Your task to perform on an android device: check google app version Image 0: 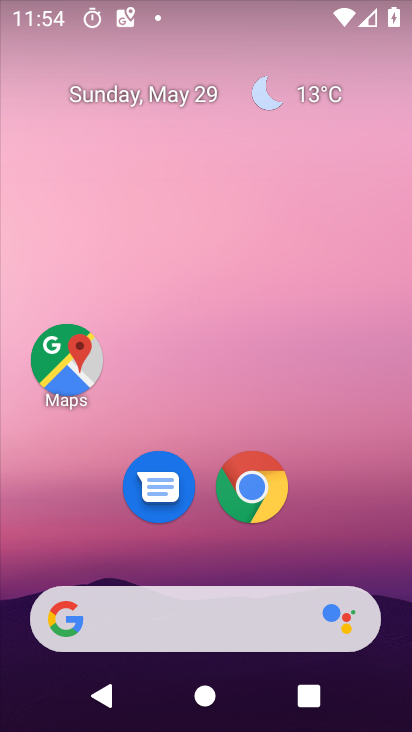
Step 0: drag from (398, 671) to (328, 219)
Your task to perform on an android device: check google app version Image 1: 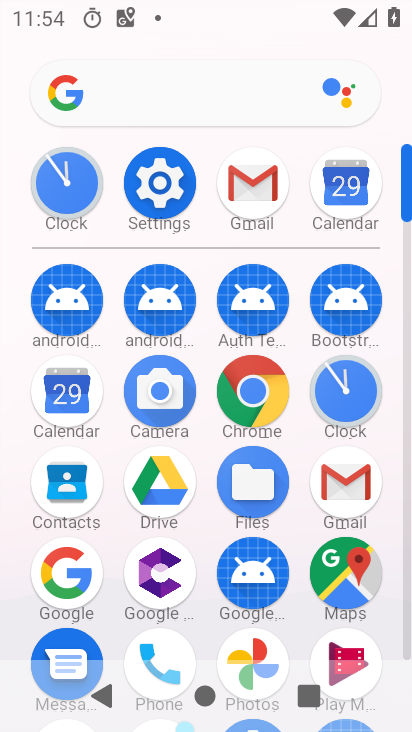
Step 1: click (74, 560)
Your task to perform on an android device: check google app version Image 2: 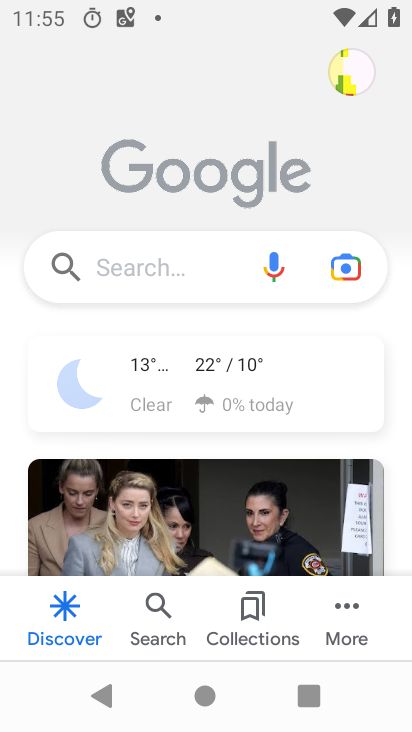
Step 2: drag from (282, 455) to (272, 248)
Your task to perform on an android device: check google app version Image 3: 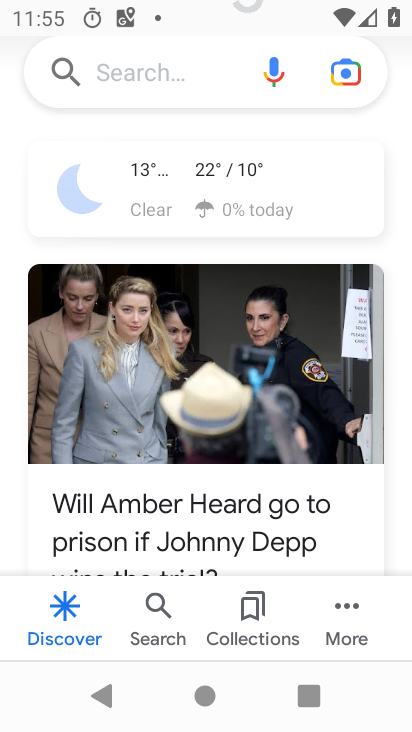
Step 3: click (339, 606)
Your task to perform on an android device: check google app version Image 4: 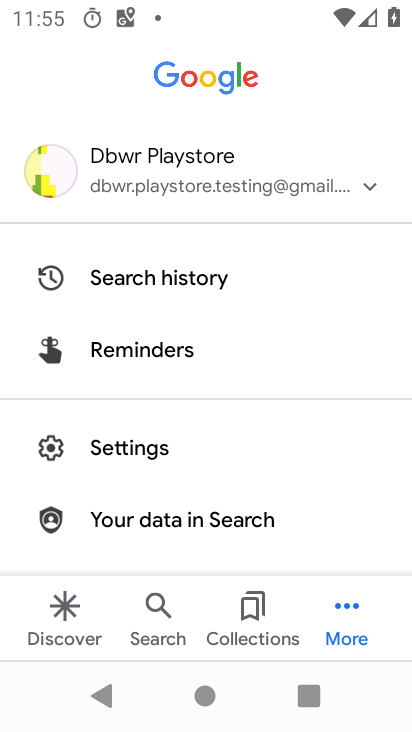
Step 4: click (121, 442)
Your task to perform on an android device: check google app version Image 5: 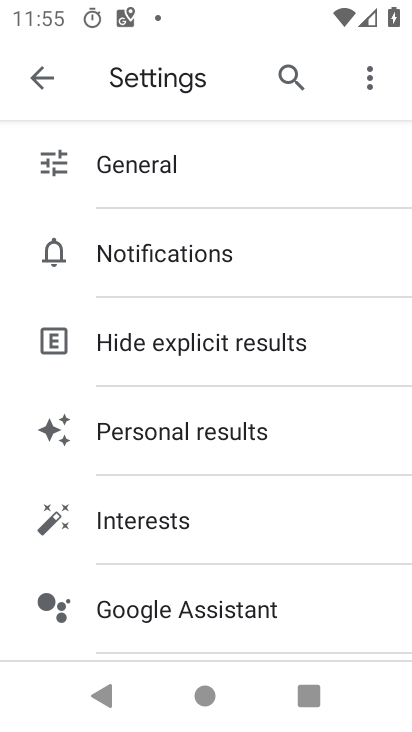
Step 5: click (290, 344)
Your task to perform on an android device: check google app version Image 6: 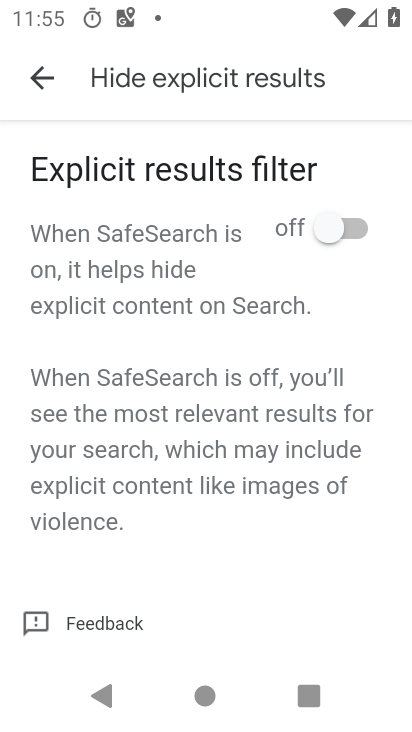
Step 6: click (36, 75)
Your task to perform on an android device: check google app version Image 7: 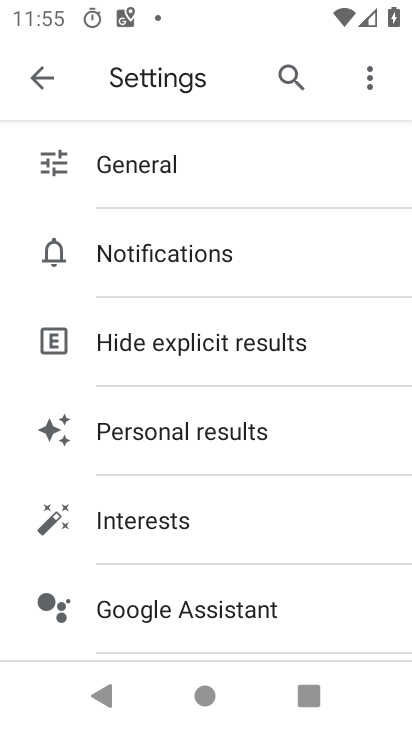
Step 7: drag from (310, 628) to (276, 230)
Your task to perform on an android device: check google app version Image 8: 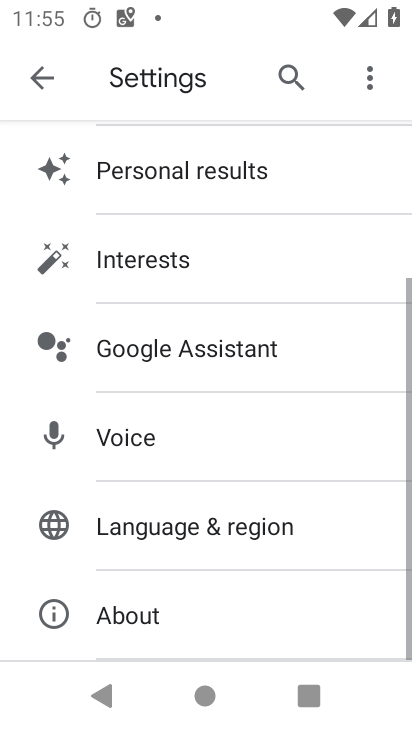
Step 8: drag from (206, 583) to (240, 264)
Your task to perform on an android device: check google app version Image 9: 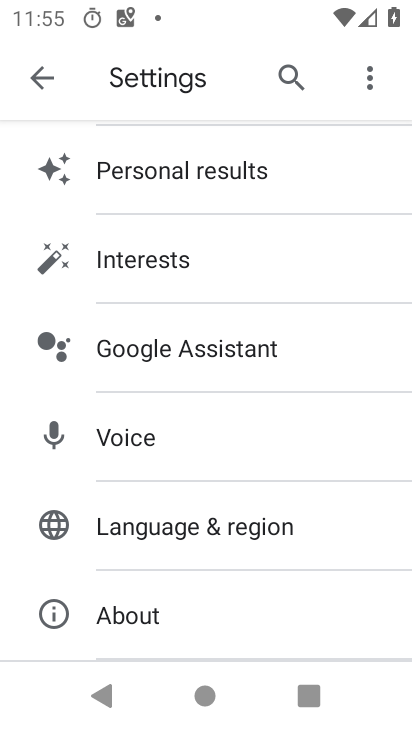
Step 9: drag from (262, 574) to (282, 253)
Your task to perform on an android device: check google app version Image 10: 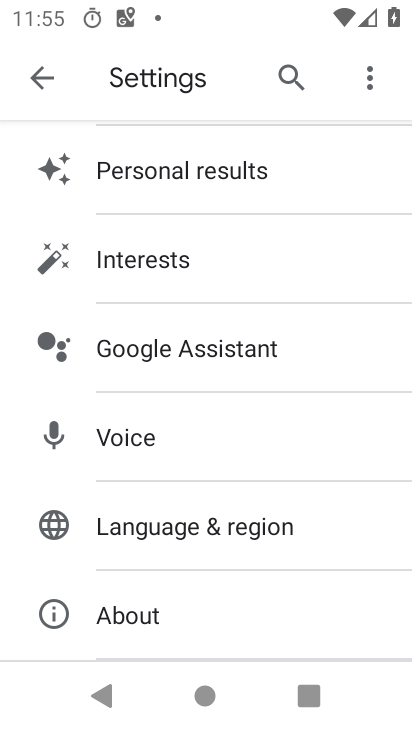
Step 10: click (116, 606)
Your task to perform on an android device: check google app version Image 11: 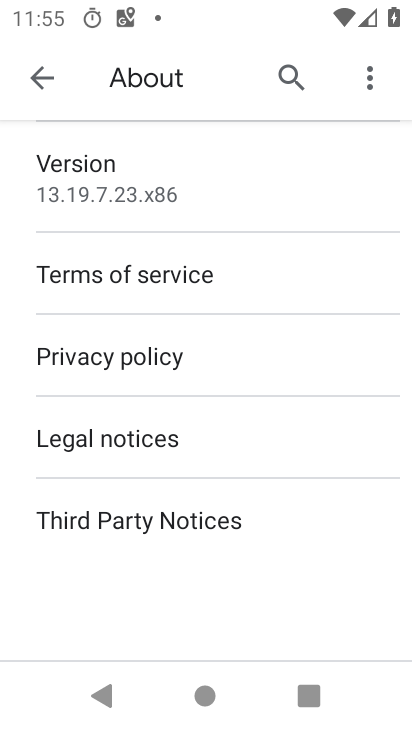
Step 11: click (80, 186)
Your task to perform on an android device: check google app version Image 12: 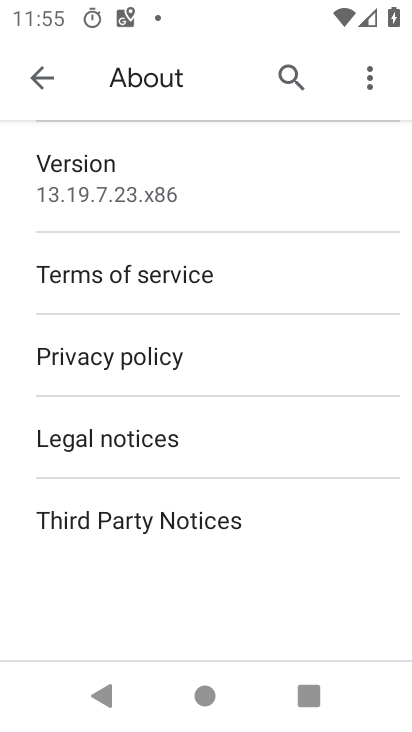
Step 12: task complete